Your task to perform on an android device: Check the news Image 0: 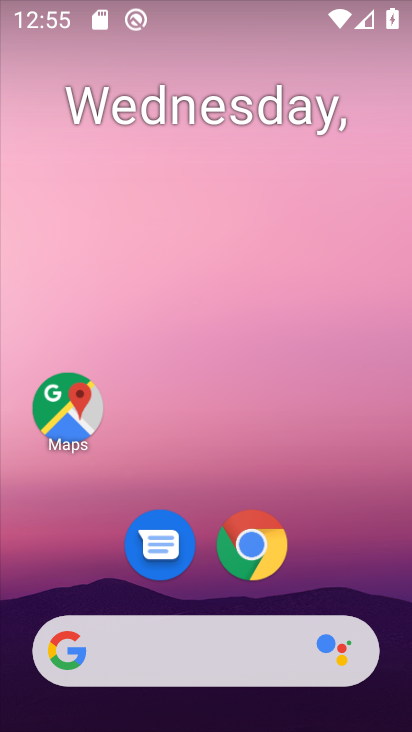
Step 0: drag from (4, 495) to (307, 432)
Your task to perform on an android device: Check the news Image 1: 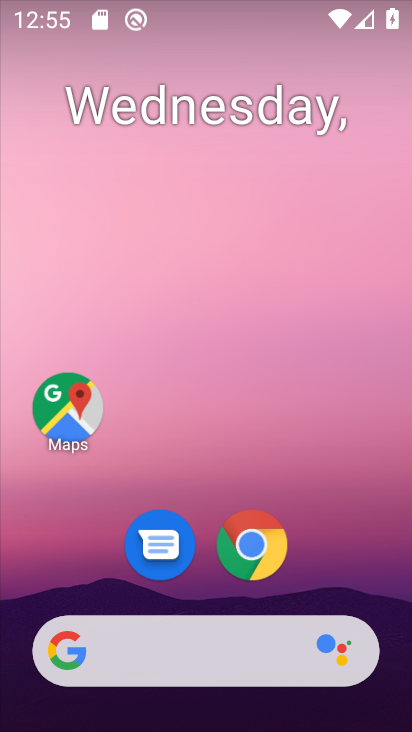
Step 1: task complete